Your task to perform on an android device: toggle show notifications on the lock screen Image 0: 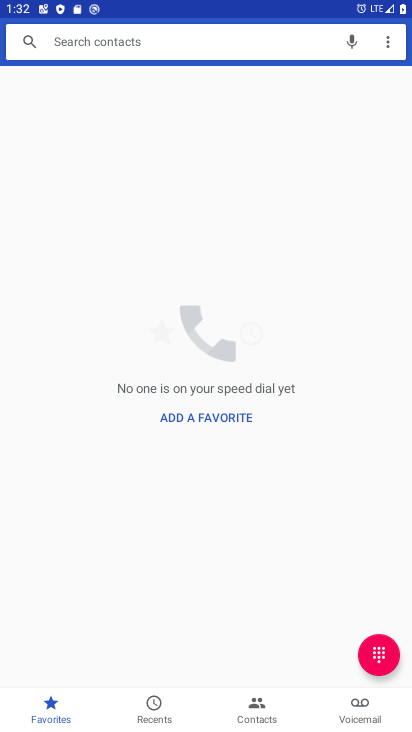
Step 0: press home button
Your task to perform on an android device: toggle show notifications on the lock screen Image 1: 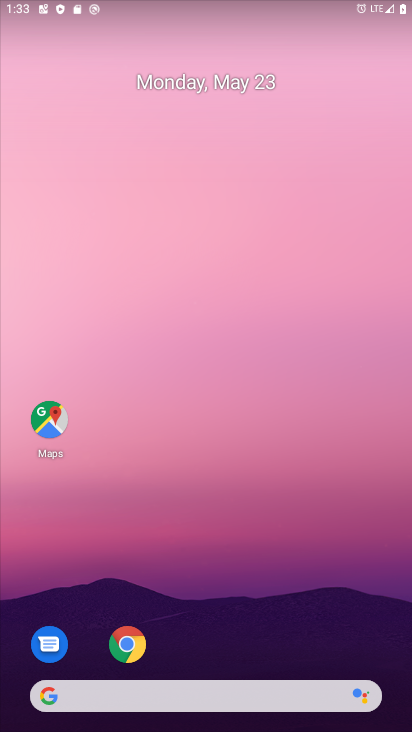
Step 1: drag from (283, 621) to (249, 144)
Your task to perform on an android device: toggle show notifications on the lock screen Image 2: 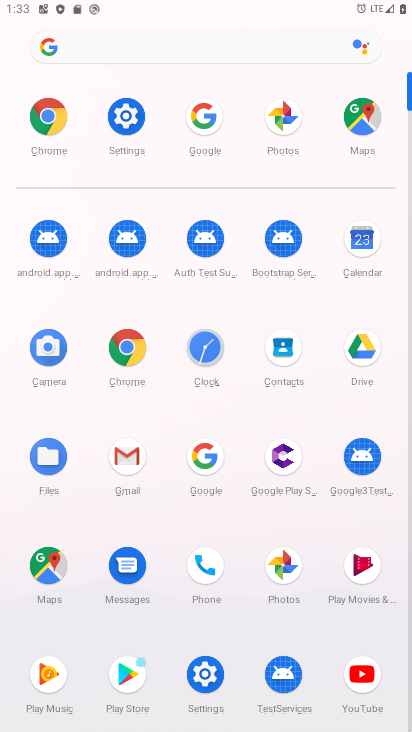
Step 2: click (135, 127)
Your task to perform on an android device: toggle show notifications on the lock screen Image 3: 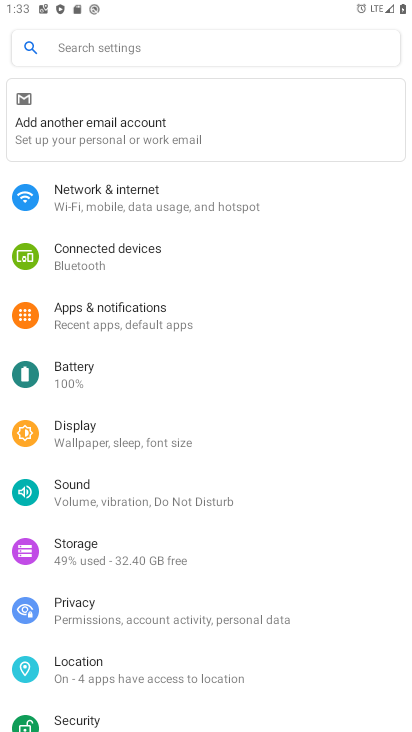
Step 3: click (178, 326)
Your task to perform on an android device: toggle show notifications on the lock screen Image 4: 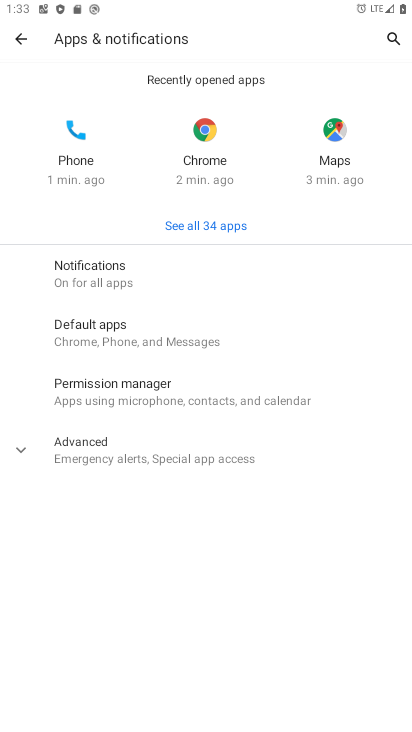
Step 4: click (129, 281)
Your task to perform on an android device: toggle show notifications on the lock screen Image 5: 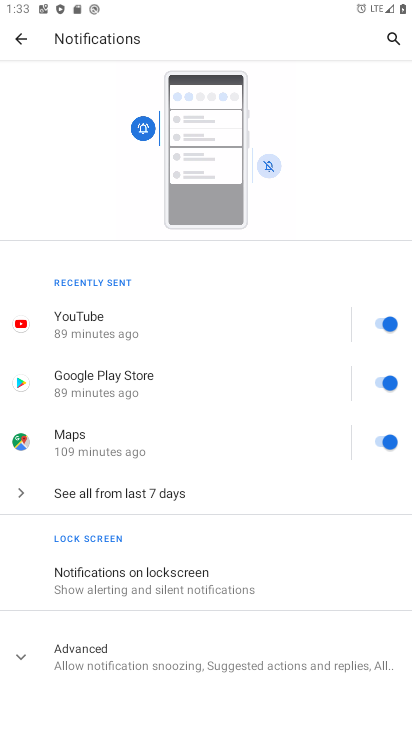
Step 5: click (117, 644)
Your task to perform on an android device: toggle show notifications on the lock screen Image 6: 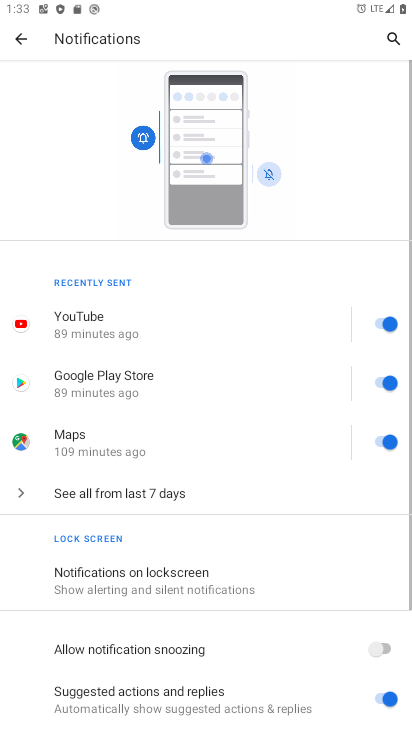
Step 6: click (168, 576)
Your task to perform on an android device: toggle show notifications on the lock screen Image 7: 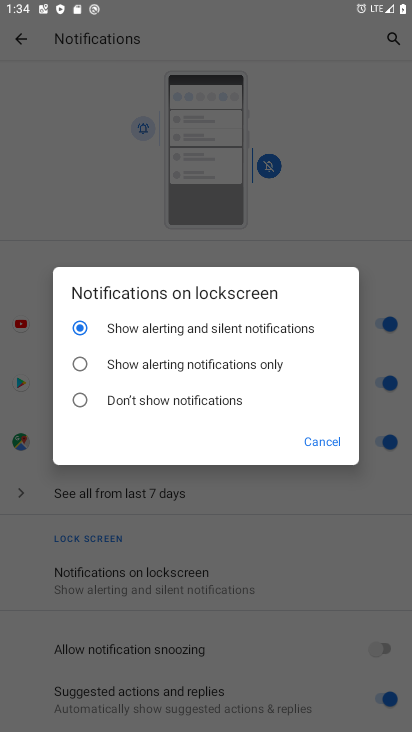
Step 7: click (109, 403)
Your task to perform on an android device: toggle show notifications on the lock screen Image 8: 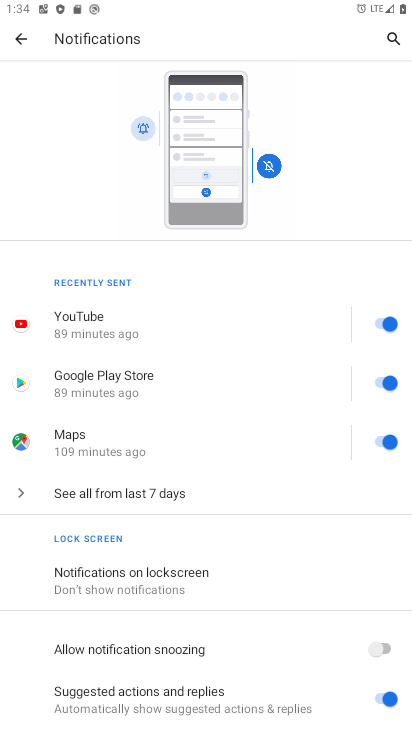
Step 8: task complete